Your task to perform on an android device: Open Reddit.com Image 0: 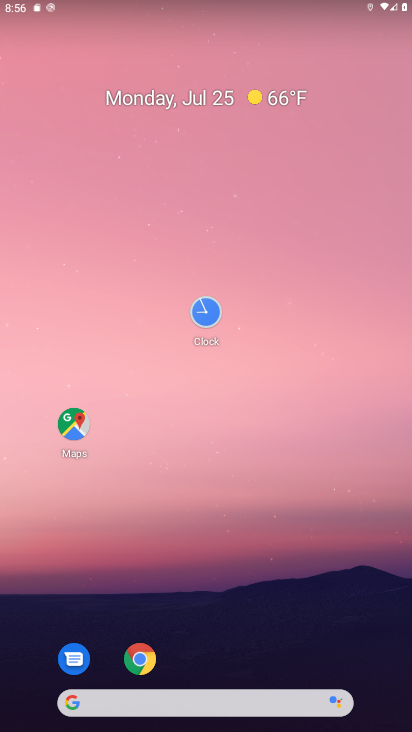
Step 0: press back button
Your task to perform on an android device: Open Reddit.com Image 1: 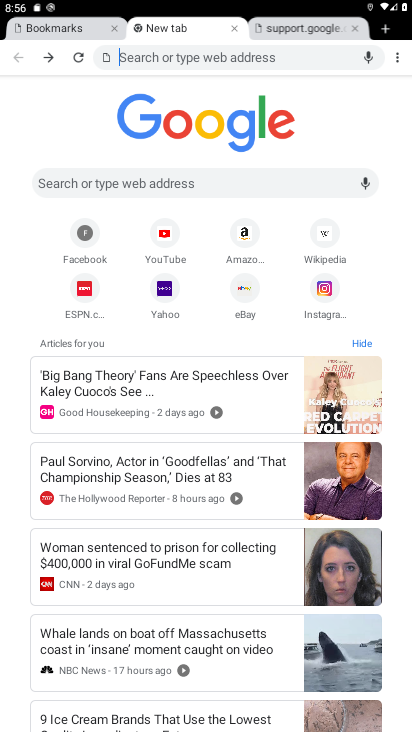
Step 1: press home button
Your task to perform on an android device: Open Reddit.com Image 2: 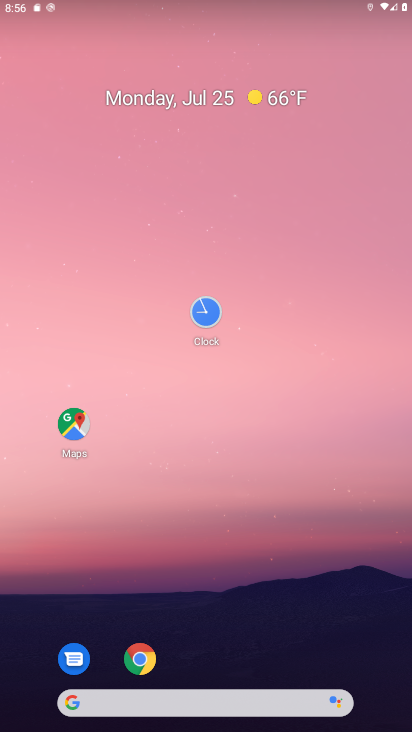
Step 2: drag from (294, 609) to (196, 123)
Your task to perform on an android device: Open Reddit.com Image 3: 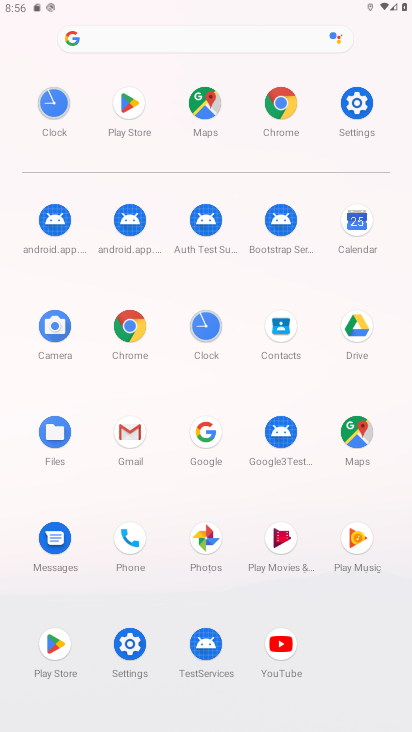
Step 3: click (286, 119)
Your task to perform on an android device: Open Reddit.com Image 4: 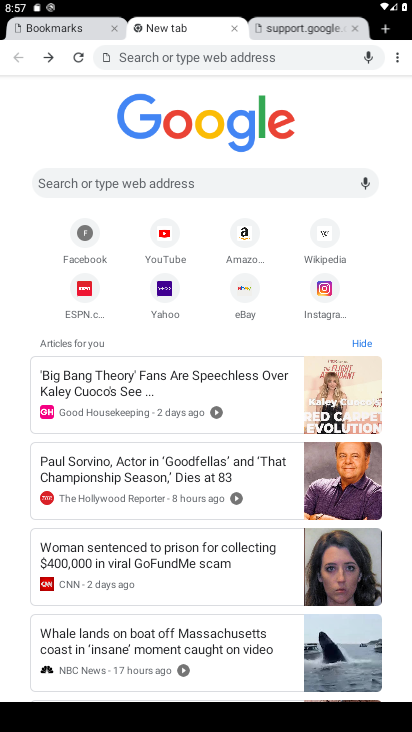
Step 4: click (97, 177)
Your task to perform on an android device: Open Reddit.com Image 5: 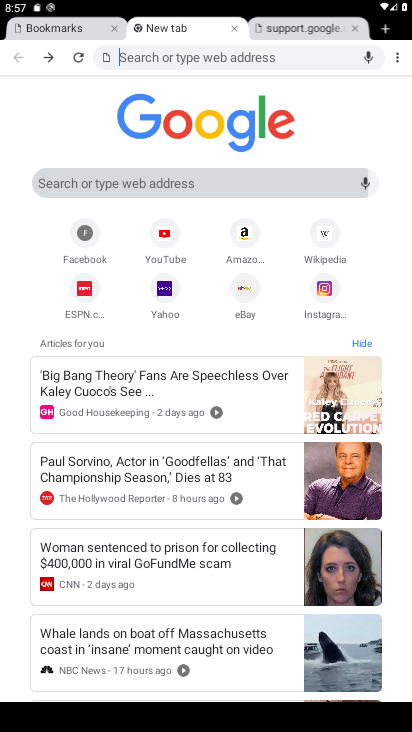
Step 5: click (97, 181)
Your task to perform on an android device: Open Reddit.com Image 6: 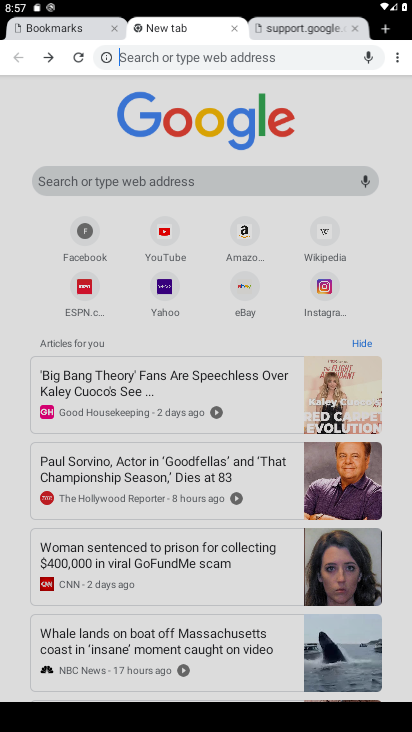
Step 6: click (103, 182)
Your task to perform on an android device: Open Reddit.com Image 7: 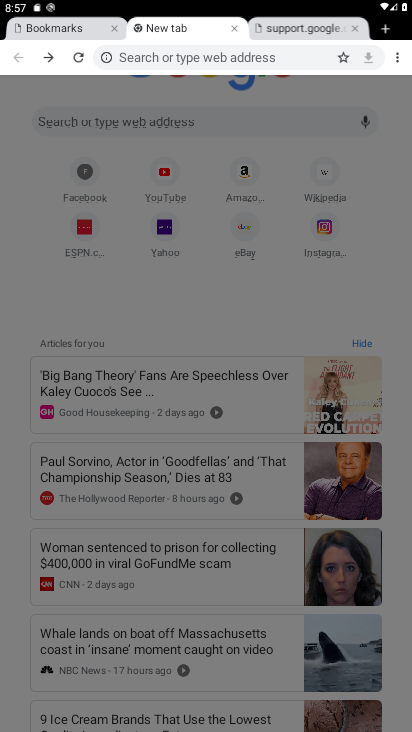
Step 7: click (113, 182)
Your task to perform on an android device: Open Reddit.com Image 8: 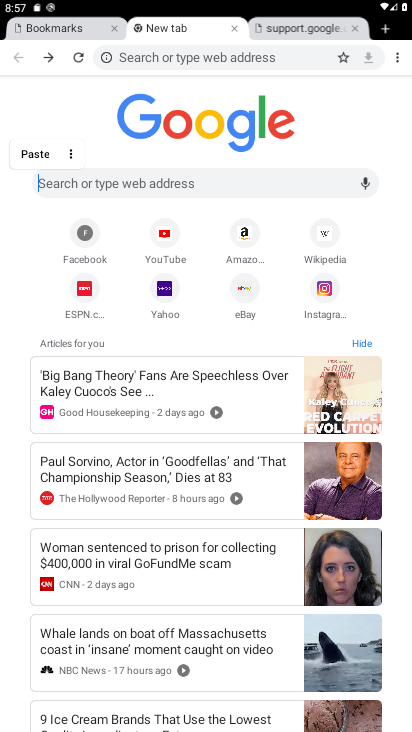
Step 8: type "reddit.com"
Your task to perform on an android device: Open Reddit.com Image 9: 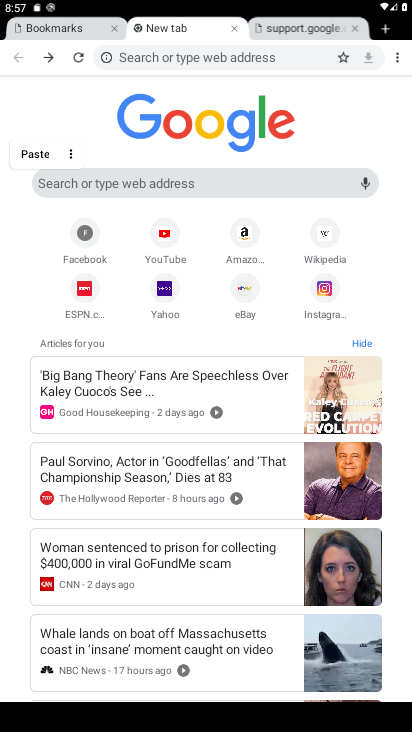
Step 9: click (79, 184)
Your task to perform on an android device: Open Reddit.com Image 10: 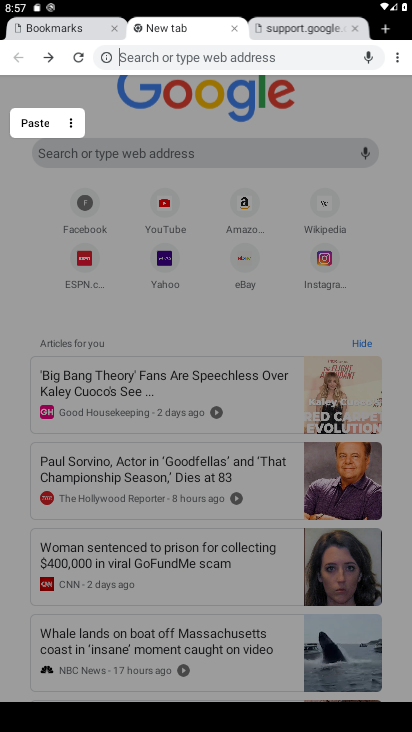
Step 10: click (86, 177)
Your task to perform on an android device: Open Reddit.com Image 11: 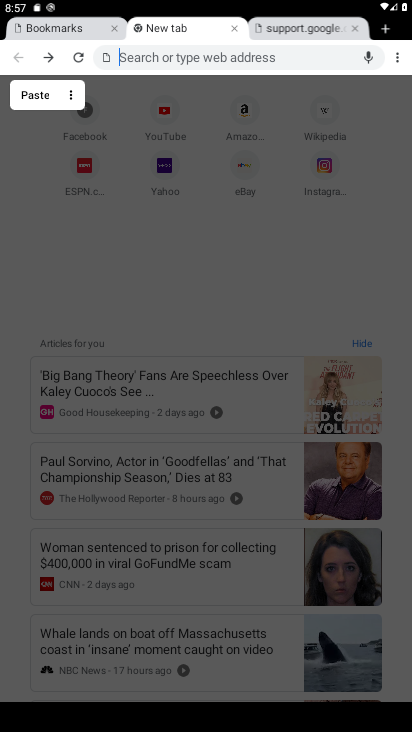
Step 11: click (90, 180)
Your task to perform on an android device: Open Reddit.com Image 12: 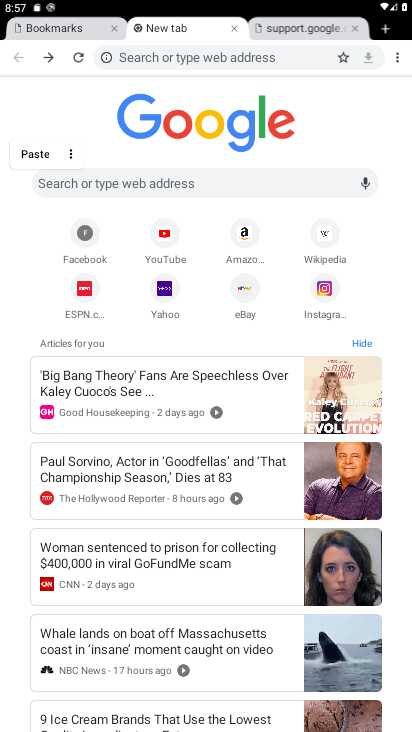
Step 12: click (134, 51)
Your task to perform on an android device: Open Reddit.com Image 13: 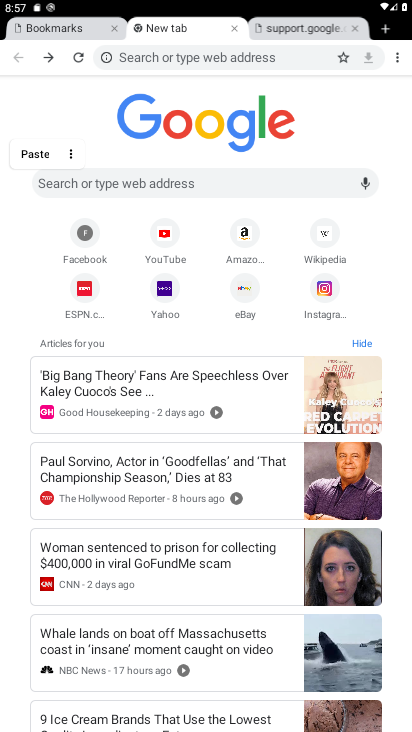
Step 13: click (133, 51)
Your task to perform on an android device: Open Reddit.com Image 14: 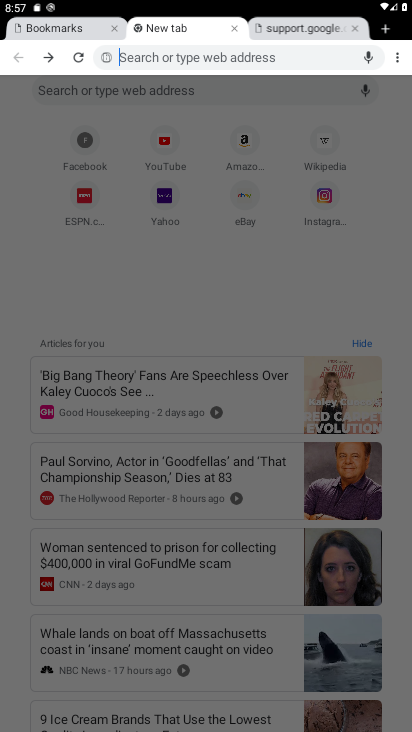
Step 14: click (141, 54)
Your task to perform on an android device: Open Reddit.com Image 15: 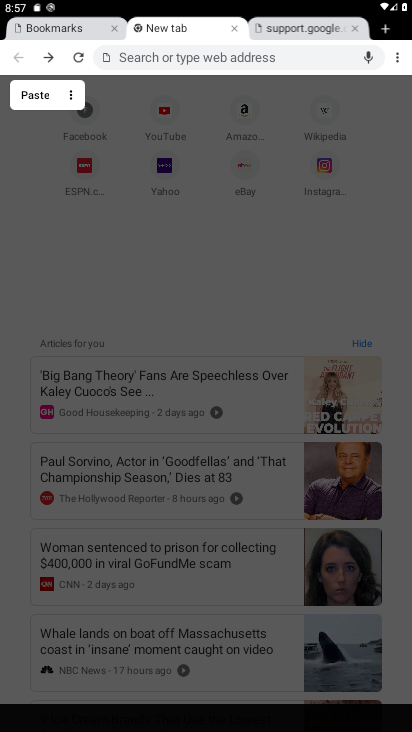
Step 15: click (150, 60)
Your task to perform on an android device: Open Reddit.com Image 16: 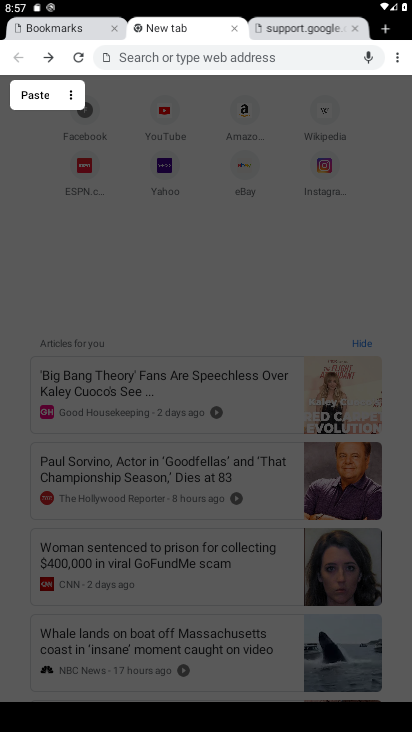
Step 16: type "reddiot.com"
Your task to perform on an android device: Open Reddit.com Image 17: 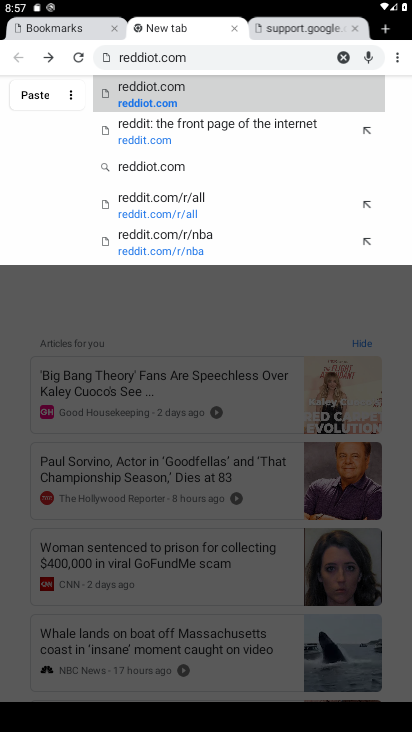
Step 17: click (160, 103)
Your task to perform on an android device: Open Reddit.com Image 18: 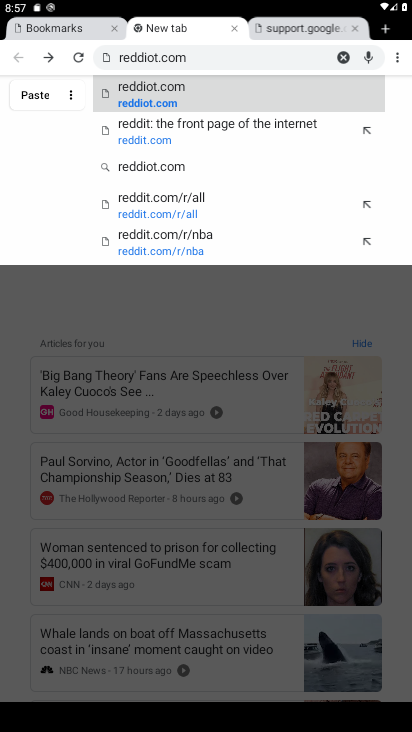
Step 18: click (161, 102)
Your task to perform on an android device: Open Reddit.com Image 19: 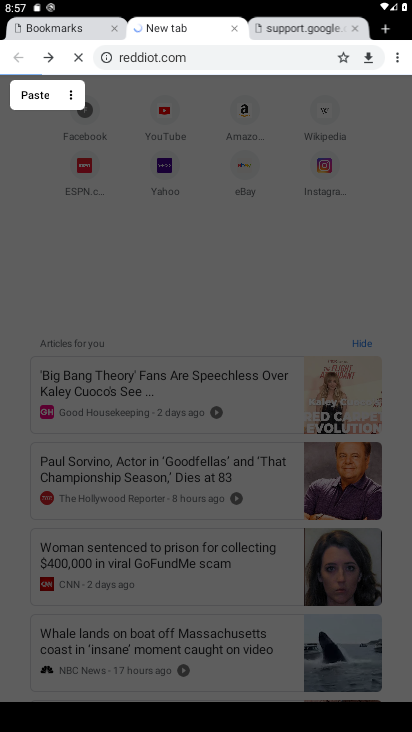
Step 19: click (169, 103)
Your task to perform on an android device: Open Reddit.com Image 20: 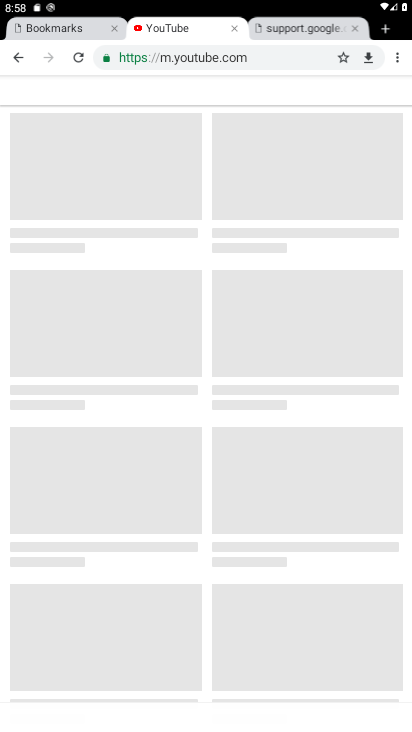
Step 20: task complete